Your task to perform on an android device: Open Chrome and go to settings Image 0: 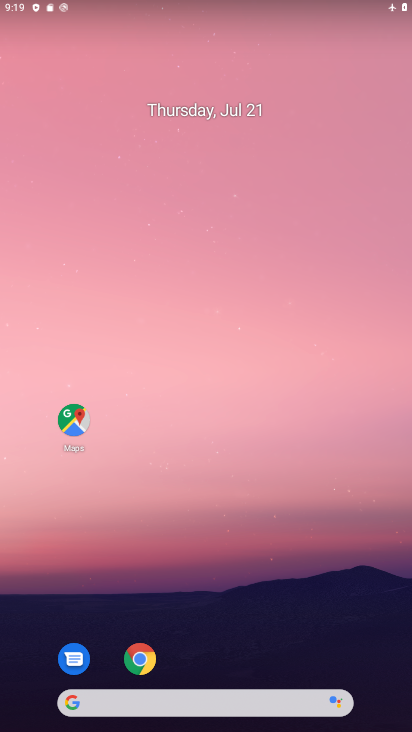
Step 0: click (152, 651)
Your task to perform on an android device: Open Chrome and go to settings Image 1: 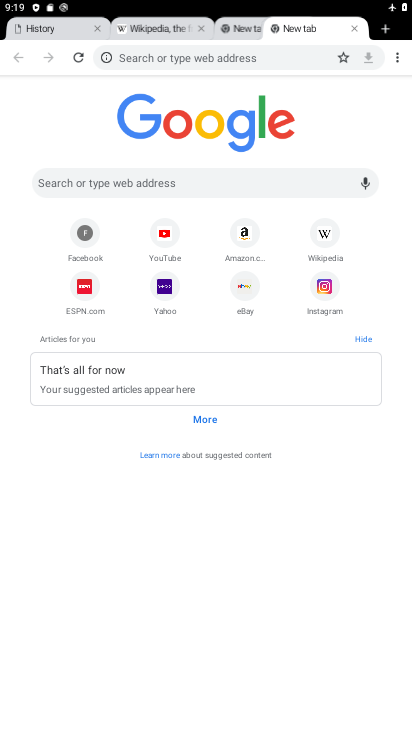
Step 1: task complete